Your task to perform on an android device: Open the phone app and click the voicemail tab. Image 0: 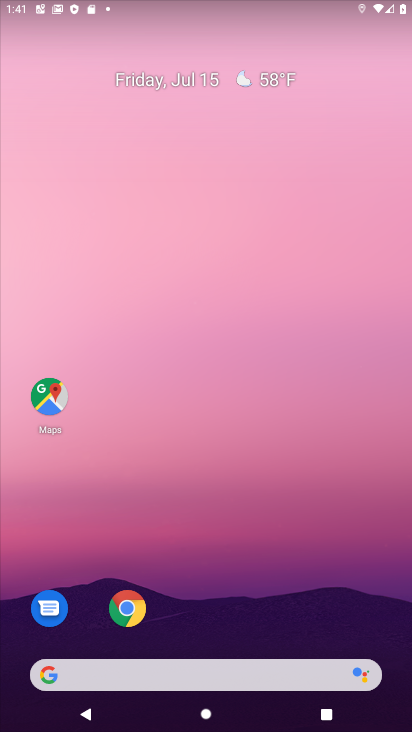
Step 0: drag from (321, 625) to (295, 20)
Your task to perform on an android device: Open the phone app and click the voicemail tab. Image 1: 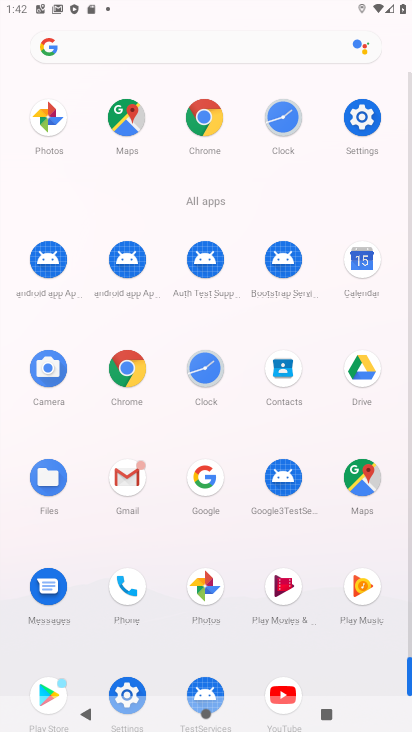
Step 1: click (291, 585)
Your task to perform on an android device: Open the phone app and click the voicemail tab. Image 2: 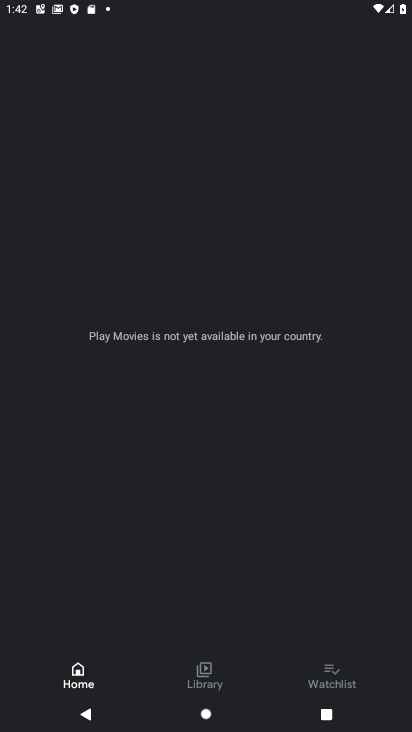
Step 2: click (321, 676)
Your task to perform on an android device: Open the phone app and click the voicemail tab. Image 3: 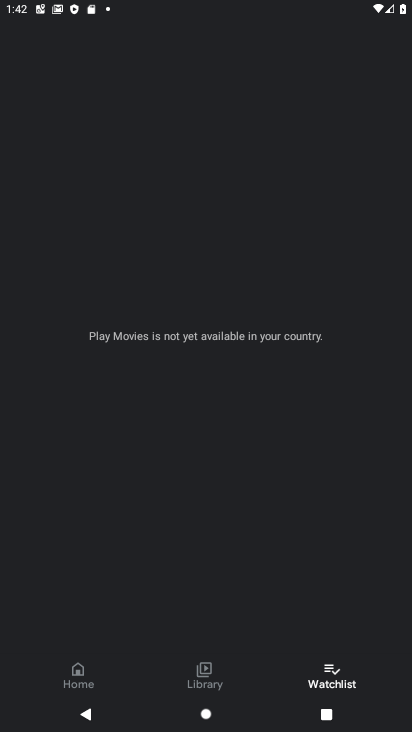
Step 3: task complete